Your task to perform on an android device: change timer sound Image 0: 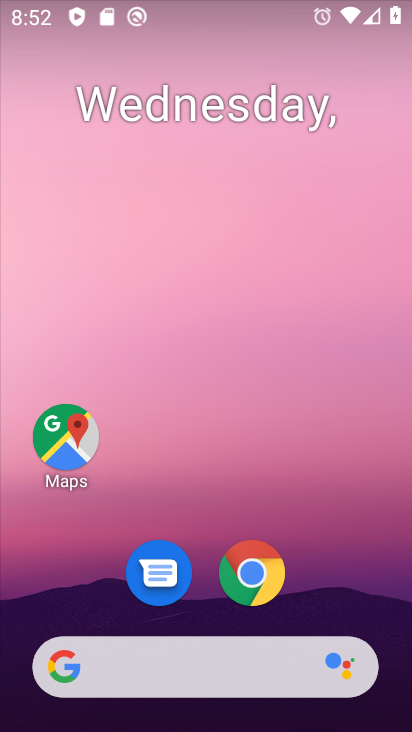
Step 0: click (248, 41)
Your task to perform on an android device: change timer sound Image 1: 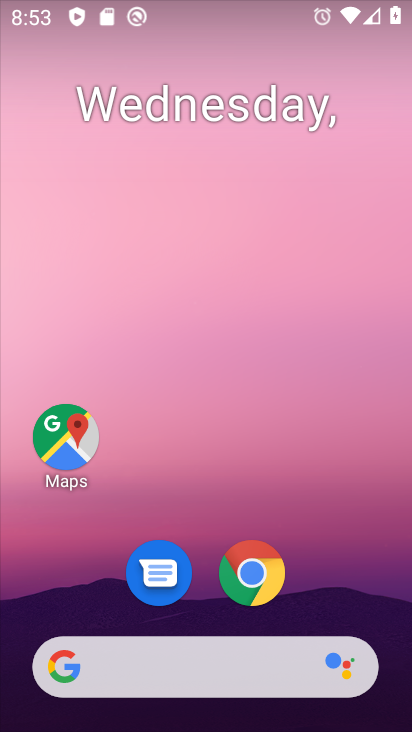
Step 1: drag from (229, 633) to (217, 80)
Your task to perform on an android device: change timer sound Image 2: 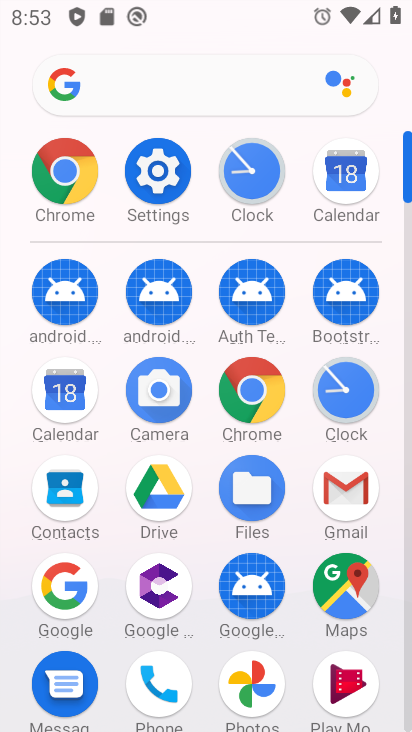
Step 2: click (353, 392)
Your task to perform on an android device: change timer sound Image 3: 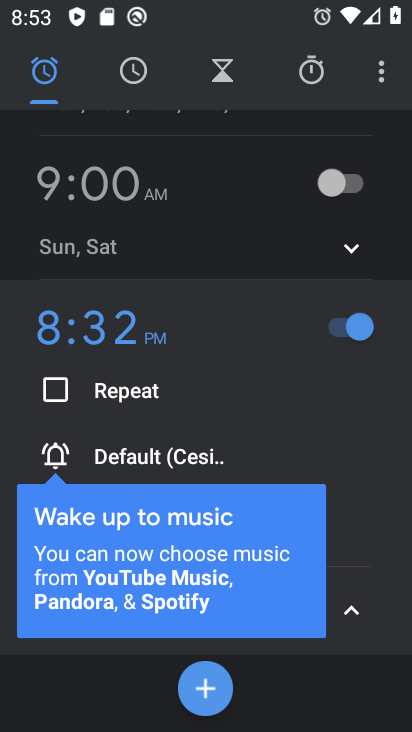
Step 3: click (384, 80)
Your task to perform on an android device: change timer sound Image 4: 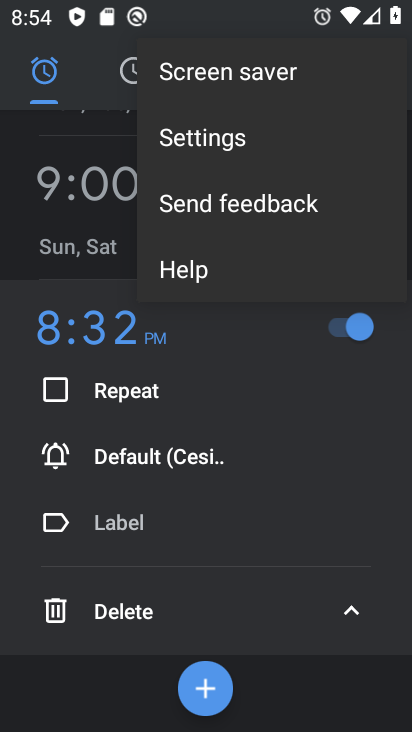
Step 4: click (204, 140)
Your task to perform on an android device: change timer sound Image 5: 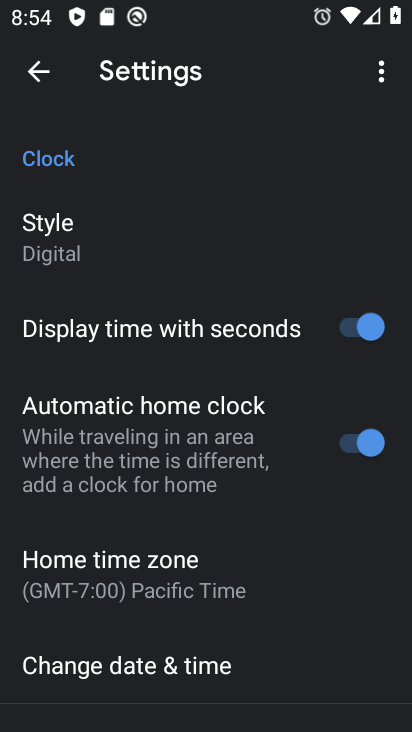
Step 5: drag from (190, 490) to (190, 199)
Your task to perform on an android device: change timer sound Image 6: 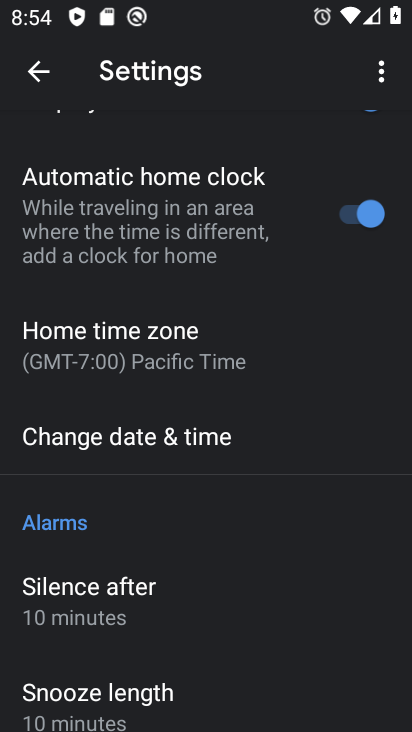
Step 6: drag from (160, 613) to (234, 103)
Your task to perform on an android device: change timer sound Image 7: 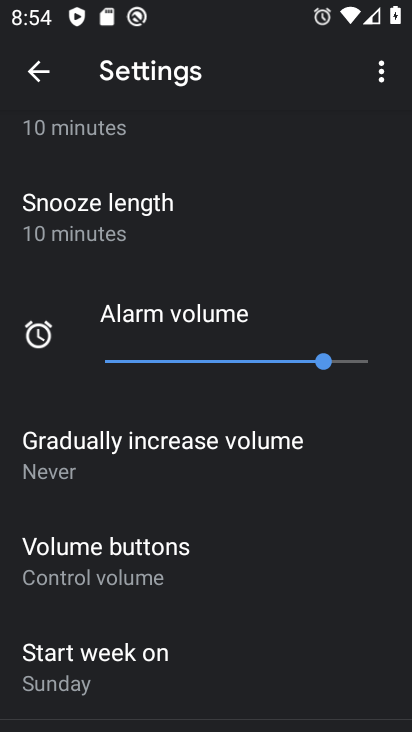
Step 7: drag from (187, 577) to (225, 114)
Your task to perform on an android device: change timer sound Image 8: 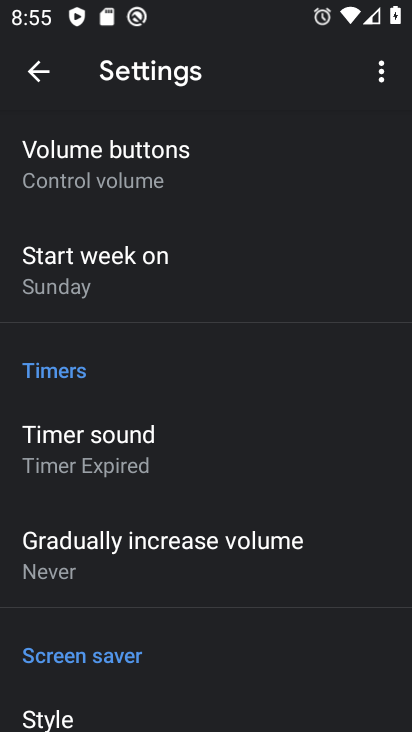
Step 8: drag from (157, 547) to (182, 375)
Your task to perform on an android device: change timer sound Image 9: 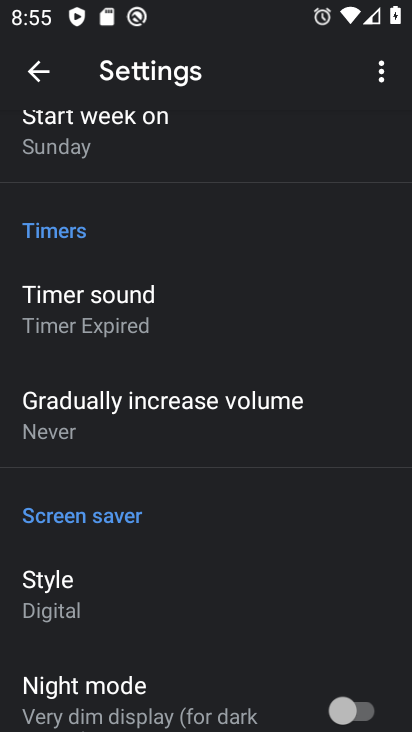
Step 9: click (167, 318)
Your task to perform on an android device: change timer sound Image 10: 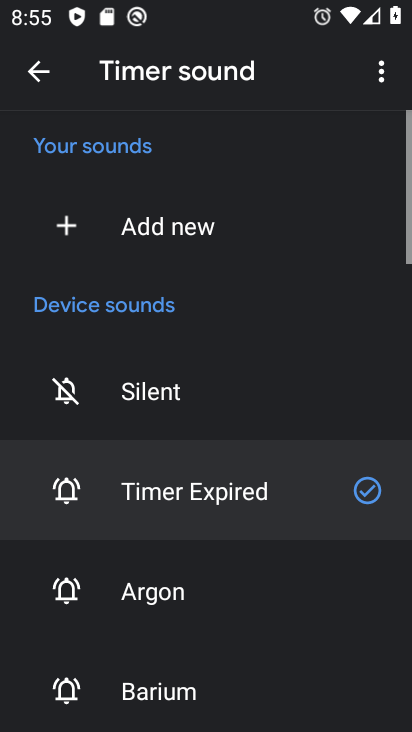
Step 10: click (164, 582)
Your task to perform on an android device: change timer sound Image 11: 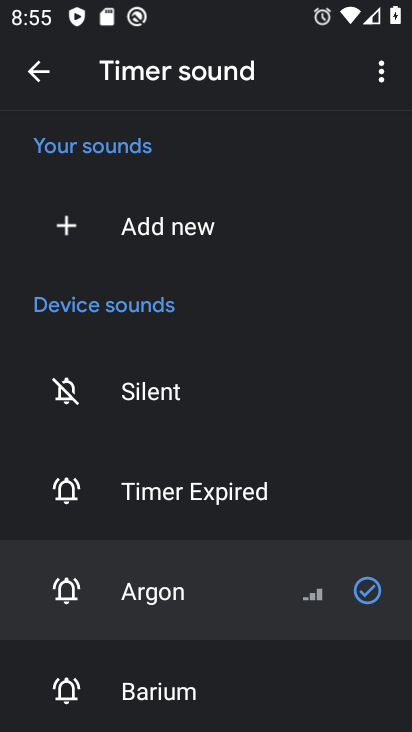
Step 11: task complete